Your task to perform on an android device: Go to Google maps Image 0: 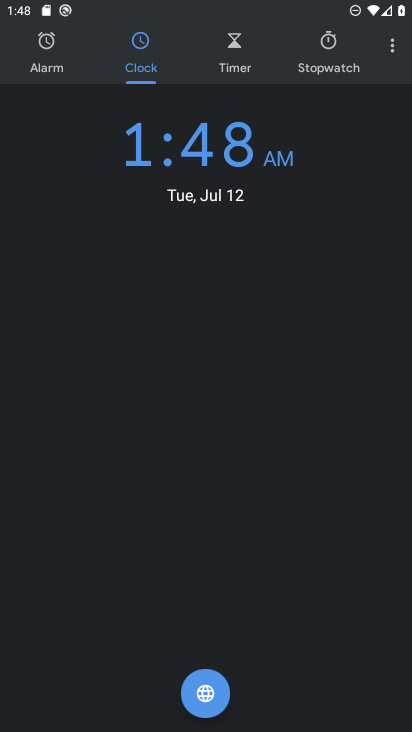
Step 0: press home button
Your task to perform on an android device: Go to Google maps Image 1: 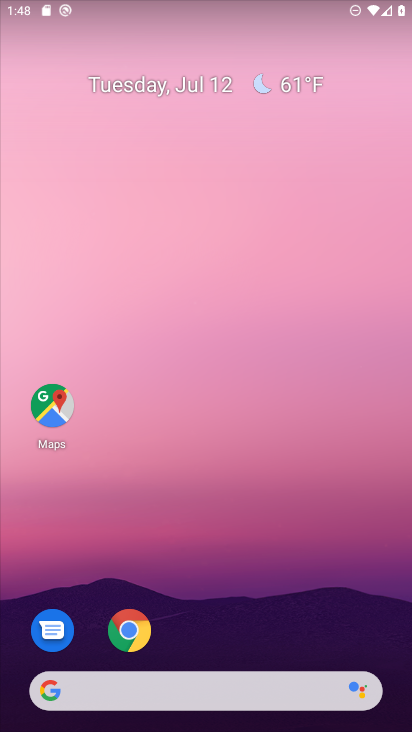
Step 1: click (49, 405)
Your task to perform on an android device: Go to Google maps Image 2: 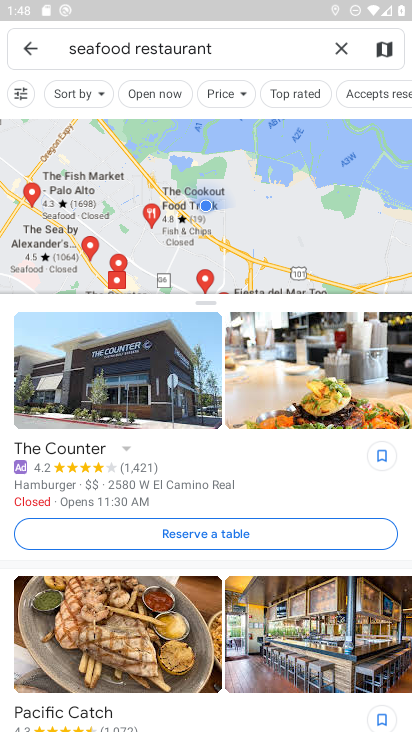
Step 2: task complete